Your task to perform on an android device: Go to Yahoo.com Image 0: 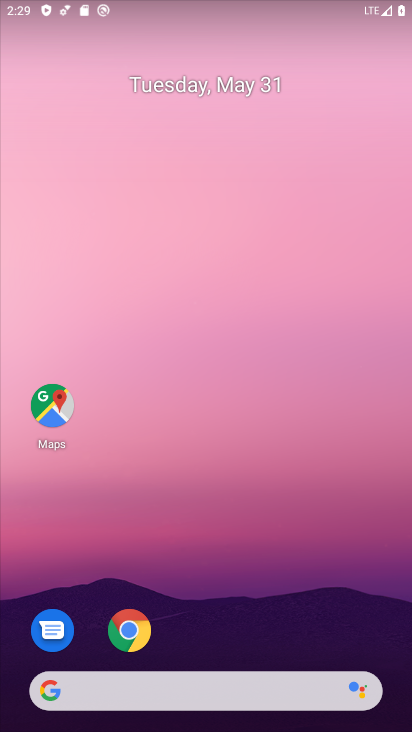
Step 0: click (135, 618)
Your task to perform on an android device: Go to Yahoo.com Image 1: 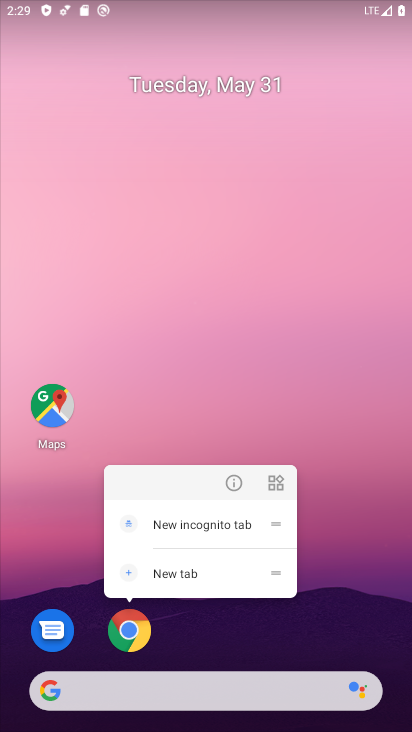
Step 1: click (134, 628)
Your task to perform on an android device: Go to Yahoo.com Image 2: 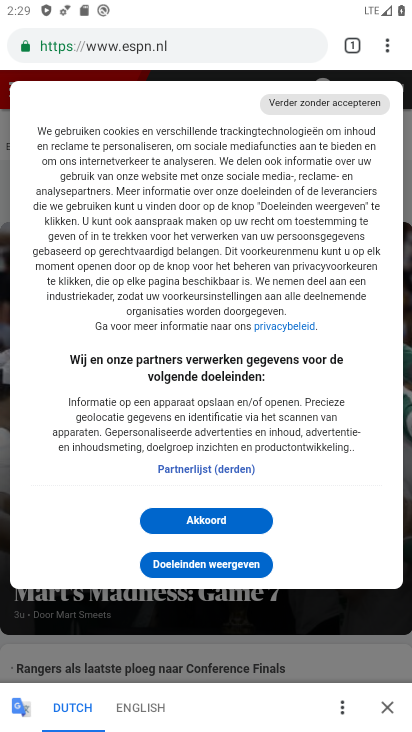
Step 2: click (346, 45)
Your task to perform on an android device: Go to Yahoo.com Image 3: 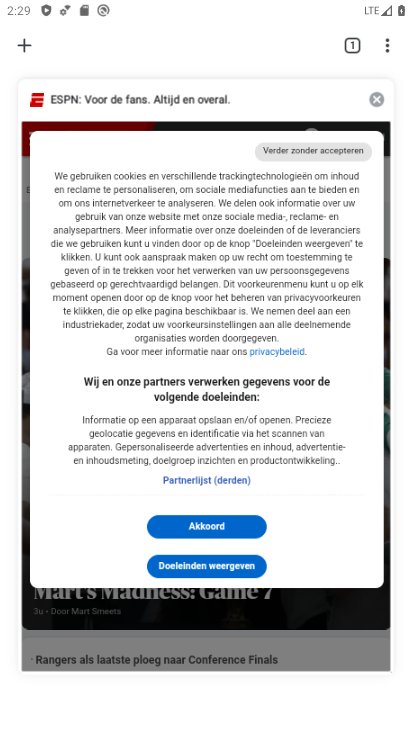
Step 3: click (8, 43)
Your task to perform on an android device: Go to Yahoo.com Image 4: 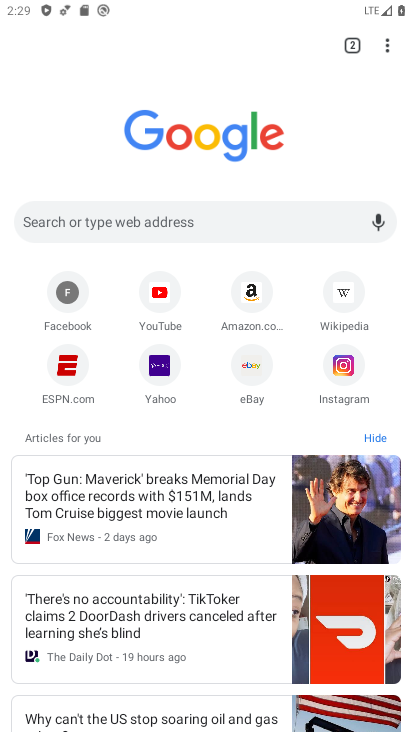
Step 4: click (158, 378)
Your task to perform on an android device: Go to Yahoo.com Image 5: 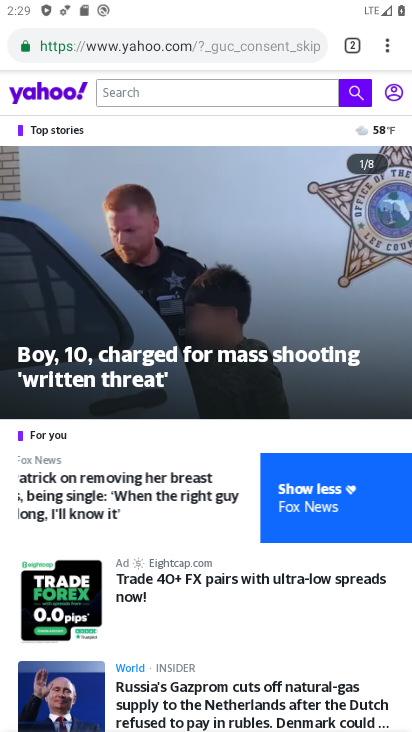
Step 5: task complete